Your task to perform on an android device: set default search engine in the chrome app Image 0: 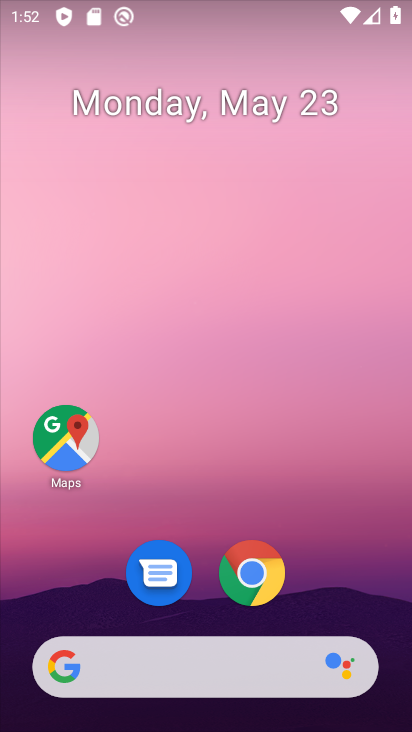
Step 0: click (255, 574)
Your task to perform on an android device: set default search engine in the chrome app Image 1: 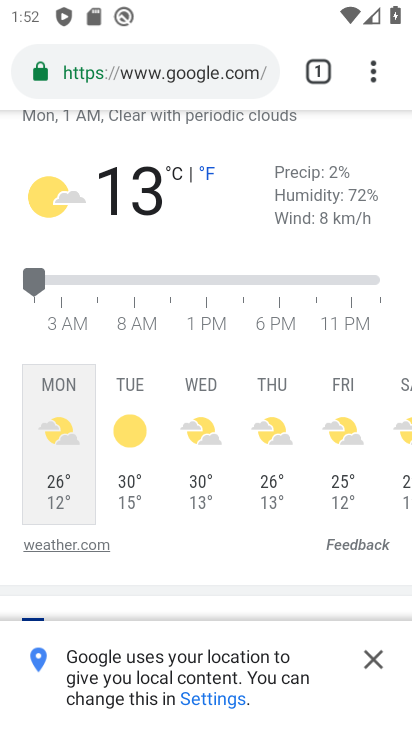
Step 1: drag from (370, 155) to (350, 250)
Your task to perform on an android device: set default search engine in the chrome app Image 2: 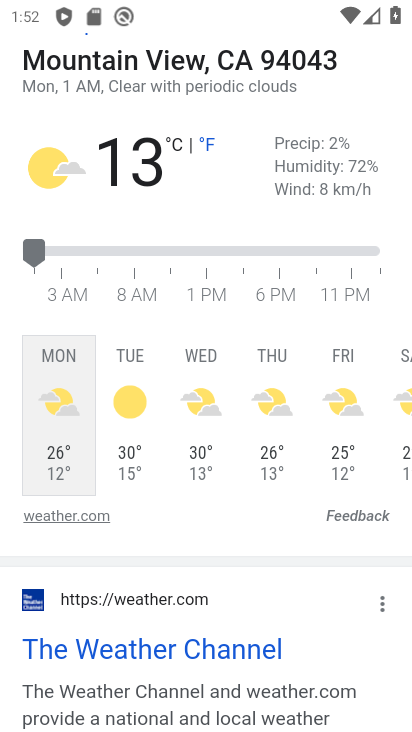
Step 2: drag from (373, 149) to (347, 355)
Your task to perform on an android device: set default search engine in the chrome app Image 3: 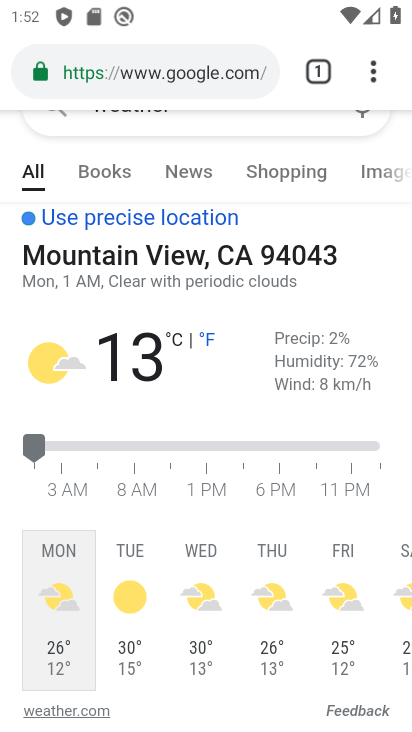
Step 3: drag from (375, 72) to (146, 566)
Your task to perform on an android device: set default search engine in the chrome app Image 4: 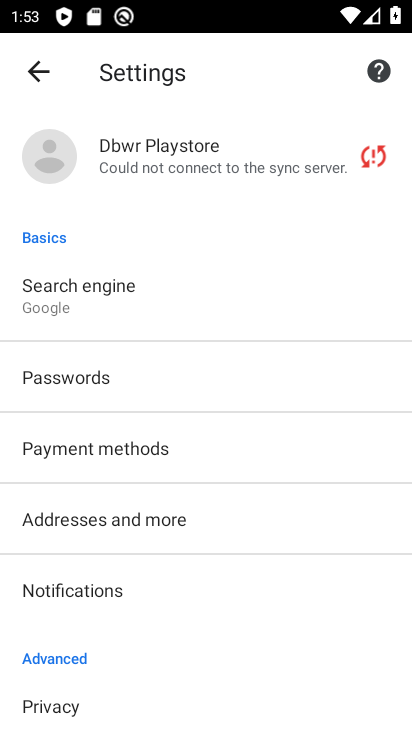
Step 4: click (134, 304)
Your task to perform on an android device: set default search engine in the chrome app Image 5: 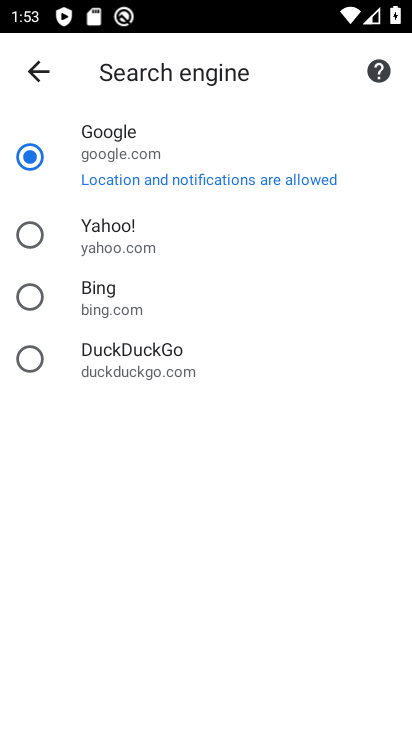
Step 5: task complete